Your task to perform on an android device: open app "Mercado Libre" Image 0: 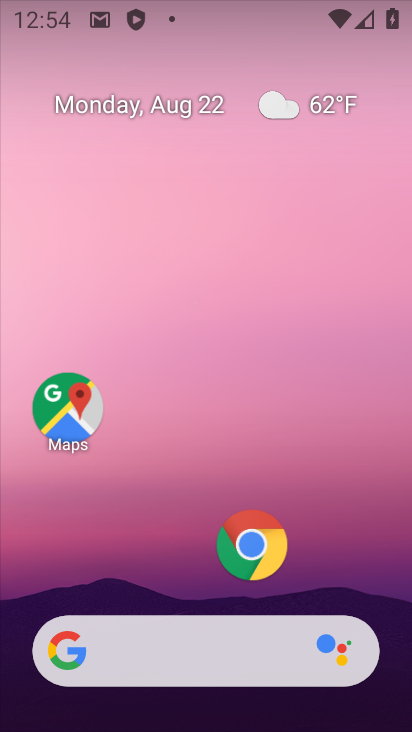
Step 0: drag from (177, 572) to (257, 16)
Your task to perform on an android device: open app "Mercado Libre" Image 1: 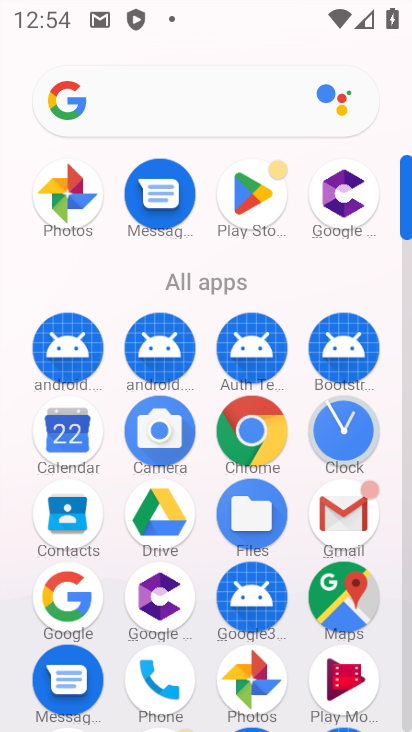
Step 1: click (272, 182)
Your task to perform on an android device: open app "Mercado Libre" Image 2: 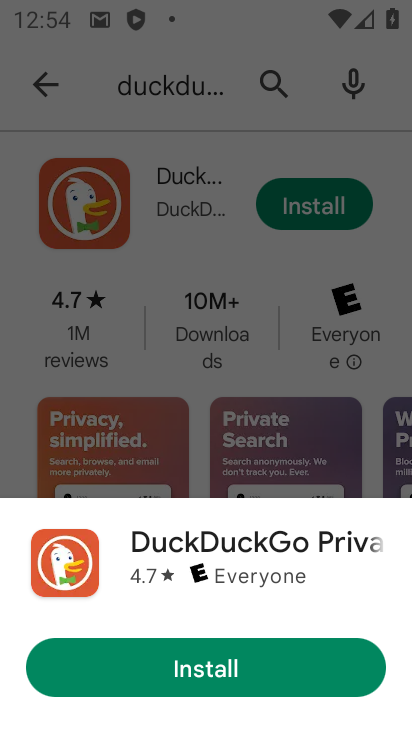
Step 2: click (281, 77)
Your task to perform on an android device: open app "Mercado Libre" Image 3: 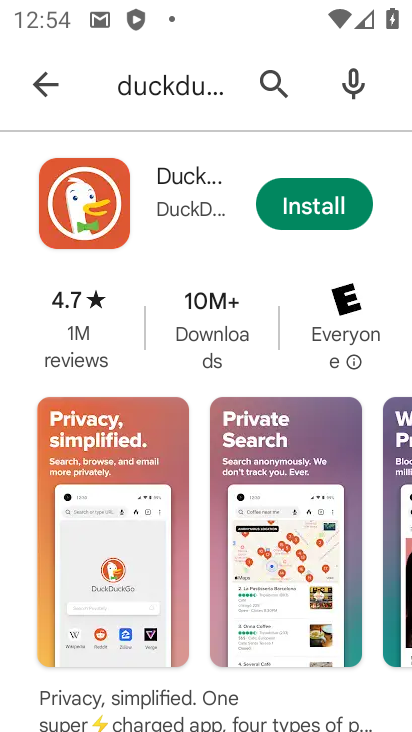
Step 3: click (286, 77)
Your task to perform on an android device: open app "Mercado Libre" Image 4: 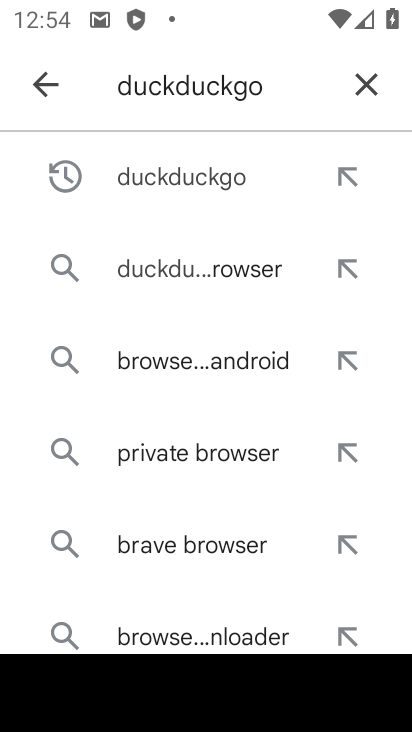
Step 4: click (379, 78)
Your task to perform on an android device: open app "Mercado Libre" Image 5: 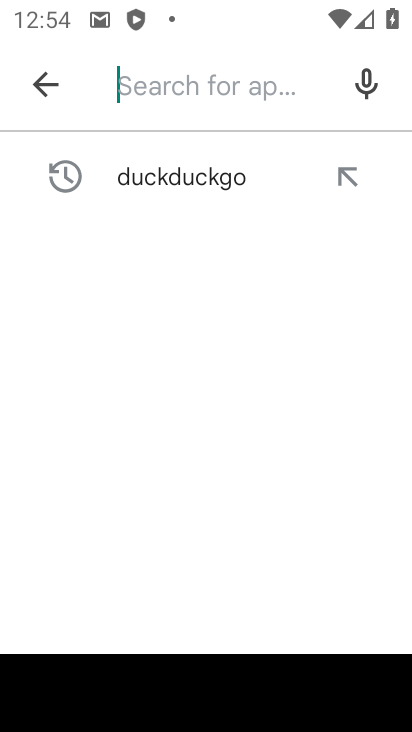
Step 5: click (191, 90)
Your task to perform on an android device: open app "Mercado Libre" Image 6: 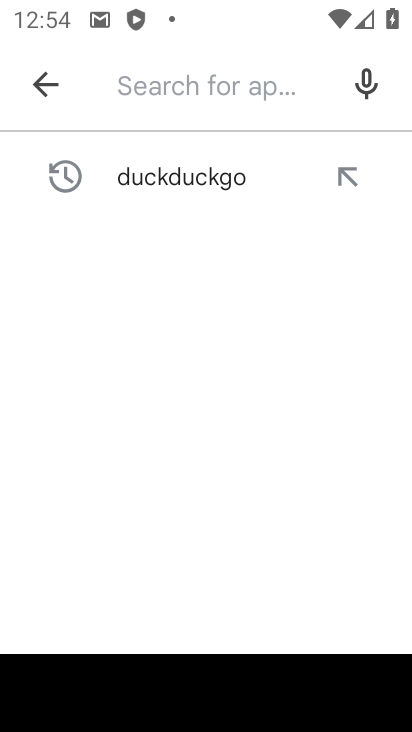
Step 6: type "Mercado Libre"
Your task to perform on an android device: open app "Mercado Libre" Image 7: 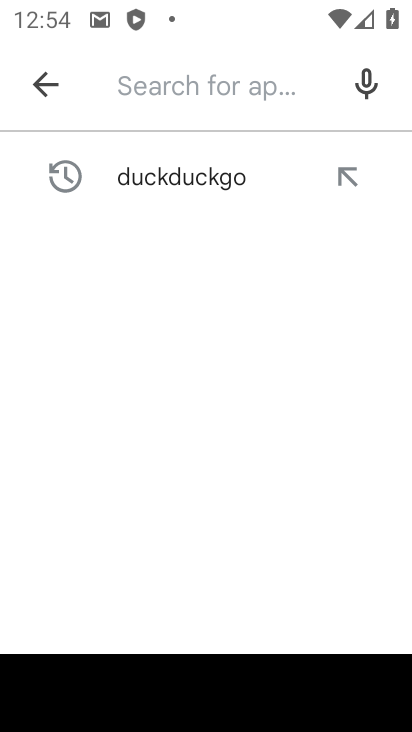
Step 7: click (195, 437)
Your task to perform on an android device: open app "Mercado Libre" Image 8: 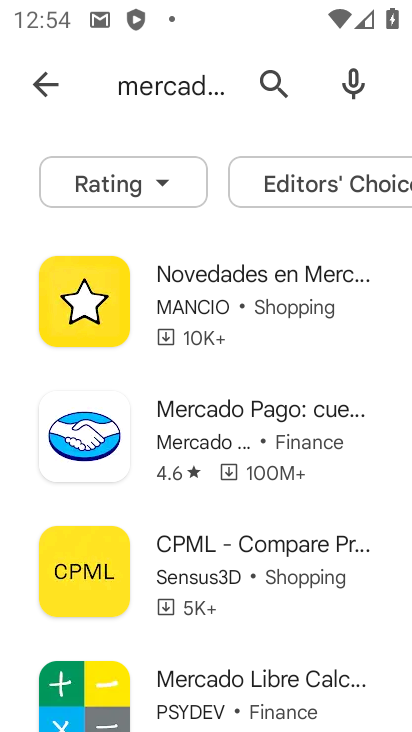
Step 8: click (235, 314)
Your task to perform on an android device: open app "Mercado Libre" Image 9: 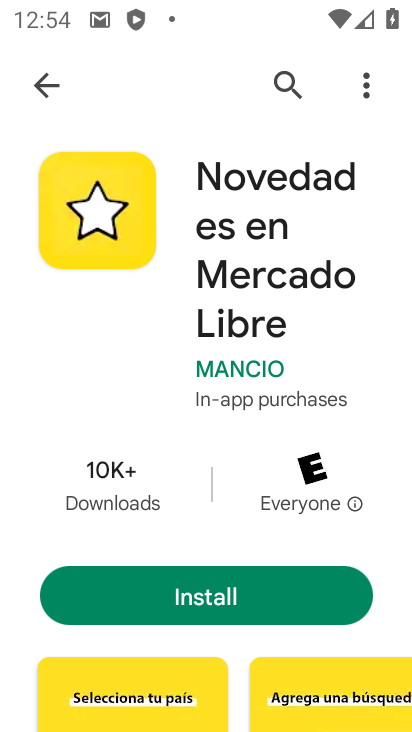
Step 9: task complete